Your task to perform on an android device: change keyboard looks Image 0: 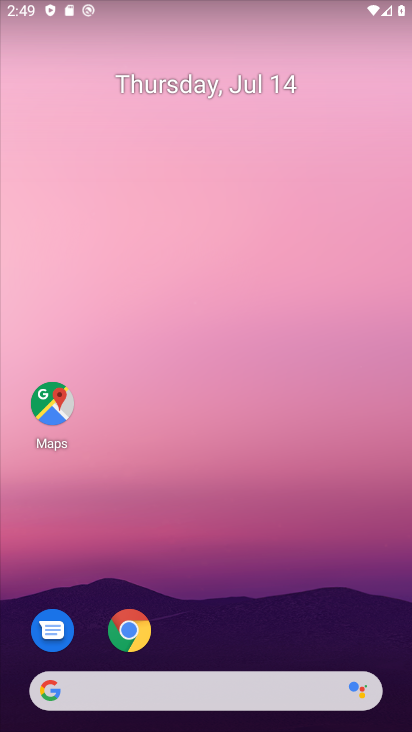
Step 0: drag from (209, 663) to (216, 33)
Your task to perform on an android device: change keyboard looks Image 1: 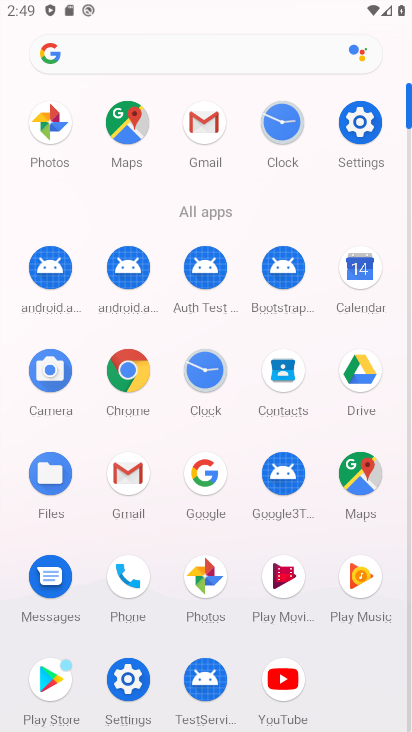
Step 1: click (361, 129)
Your task to perform on an android device: change keyboard looks Image 2: 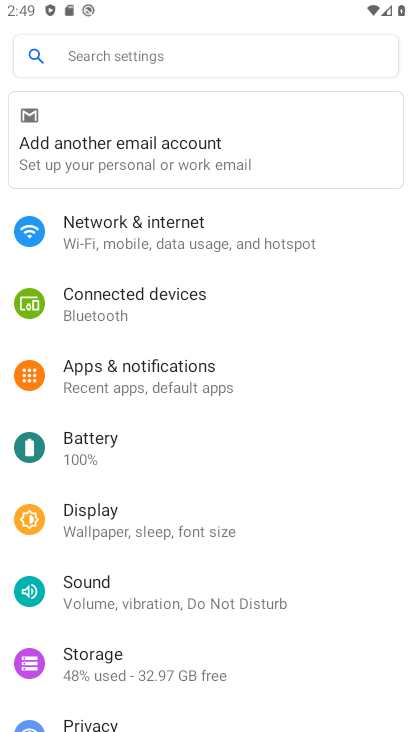
Step 2: drag from (151, 512) to (131, 120)
Your task to perform on an android device: change keyboard looks Image 3: 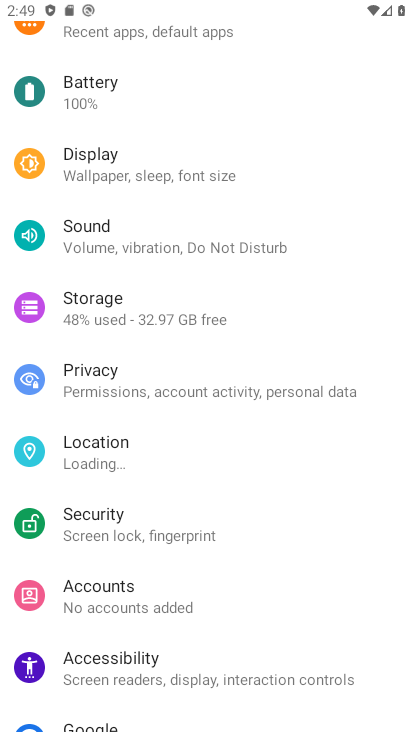
Step 3: drag from (130, 583) to (107, 115)
Your task to perform on an android device: change keyboard looks Image 4: 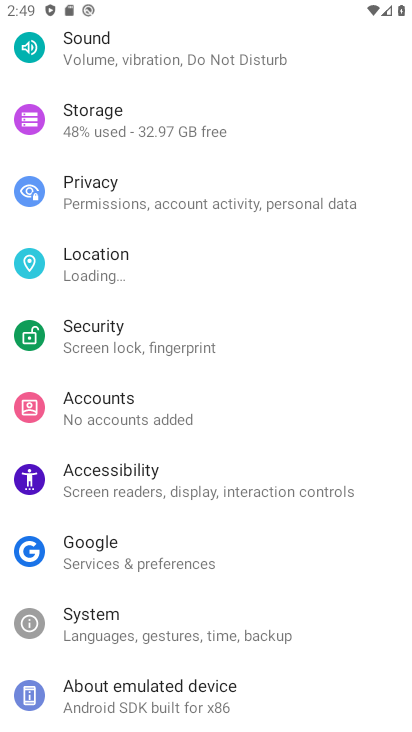
Step 4: click (106, 612)
Your task to perform on an android device: change keyboard looks Image 5: 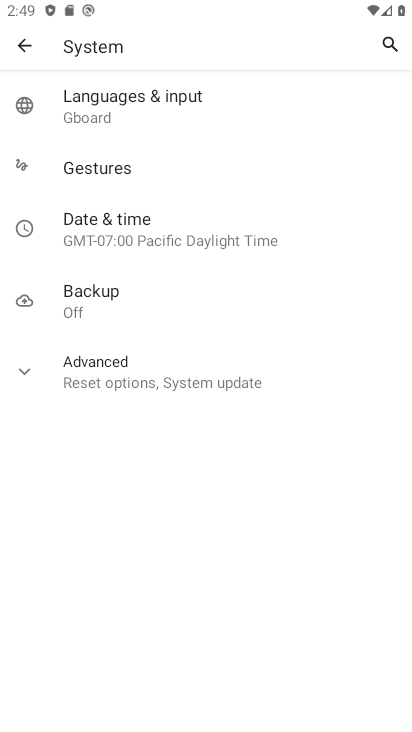
Step 5: click (93, 90)
Your task to perform on an android device: change keyboard looks Image 6: 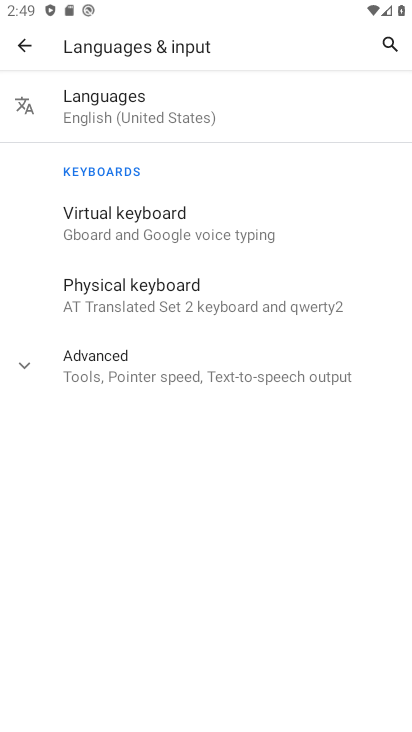
Step 6: click (91, 203)
Your task to perform on an android device: change keyboard looks Image 7: 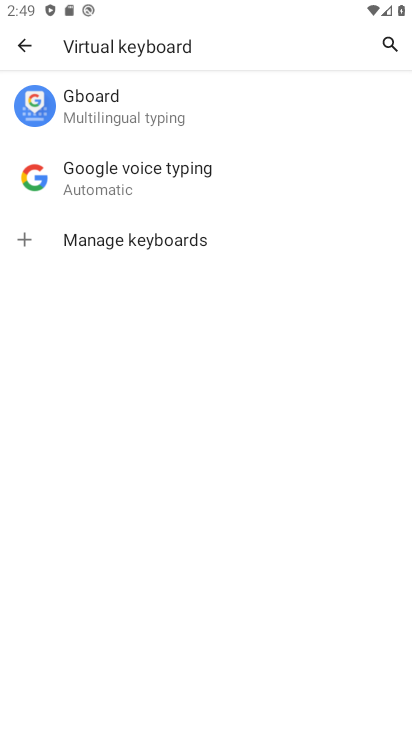
Step 7: click (88, 132)
Your task to perform on an android device: change keyboard looks Image 8: 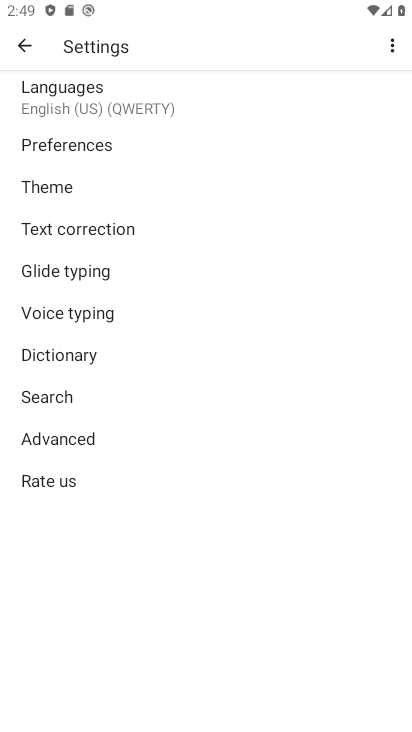
Step 8: click (60, 187)
Your task to perform on an android device: change keyboard looks Image 9: 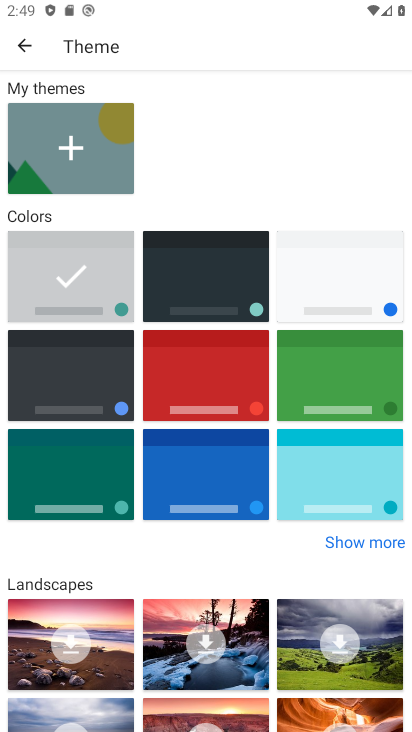
Step 9: click (113, 375)
Your task to perform on an android device: change keyboard looks Image 10: 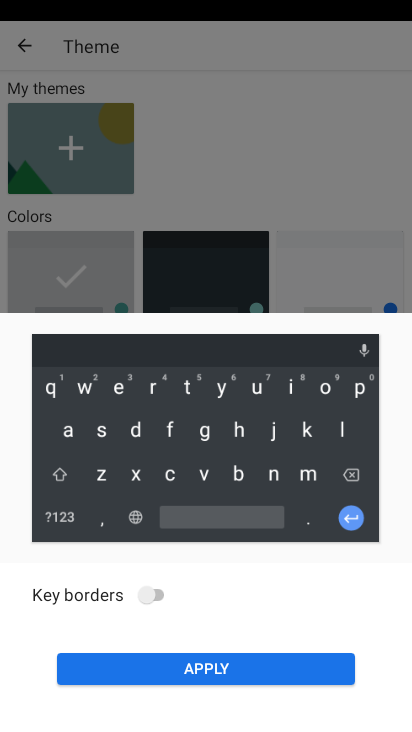
Step 10: click (206, 683)
Your task to perform on an android device: change keyboard looks Image 11: 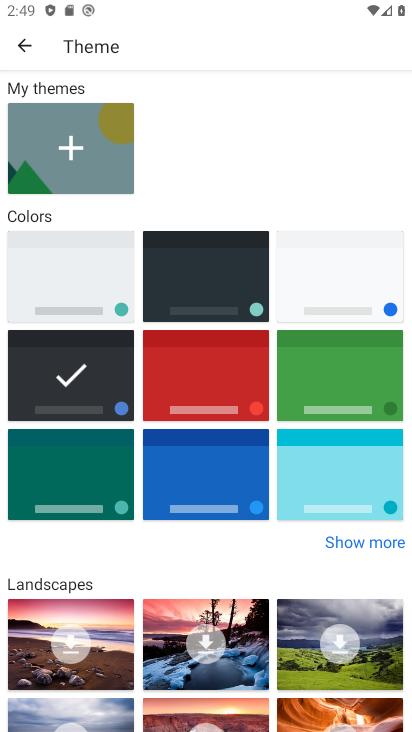
Step 11: task complete